Your task to perform on an android device: turn off wifi Image 0: 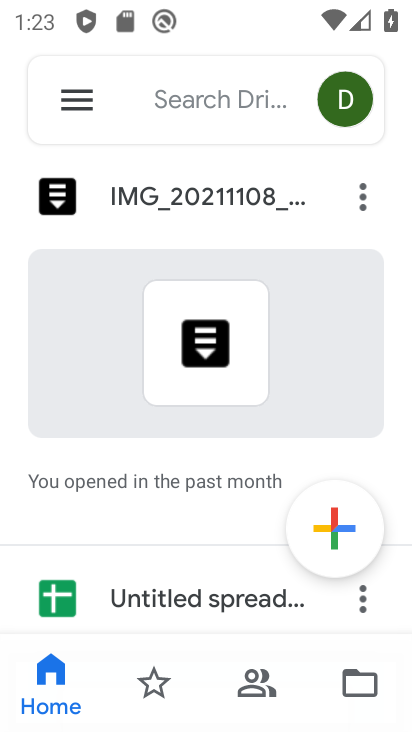
Step 0: press back button
Your task to perform on an android device: turn off wifi Image 1: 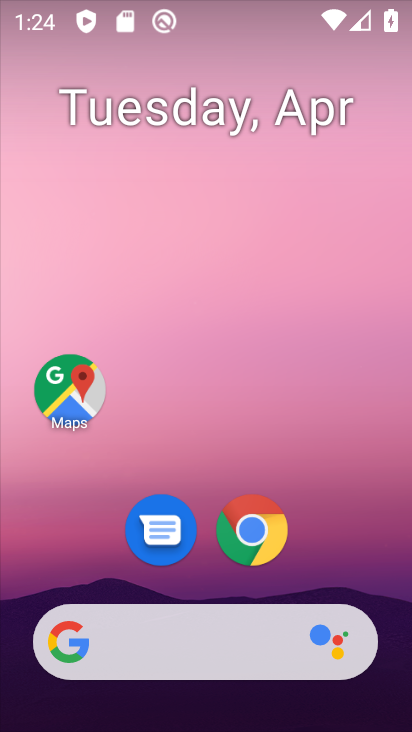
Step 1: drag from (207, 713) to (196, 56)
Your task to perform on an android device: turn off wifi Image 2: 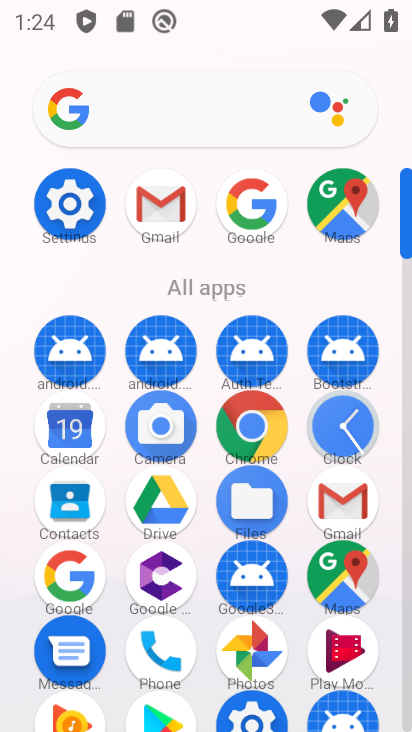
Step 2: click (71, 211)
Your task to perform on an android device: turn off wifi Image 3: 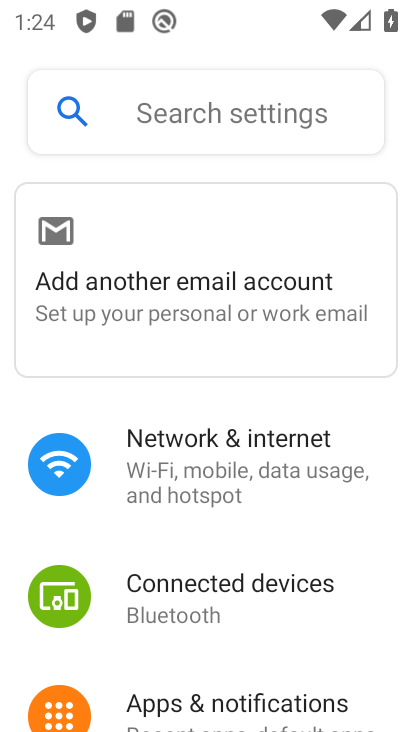
Step 3: click (219, 460)
Your task to perform on an android device: turn off wifi Image 4: 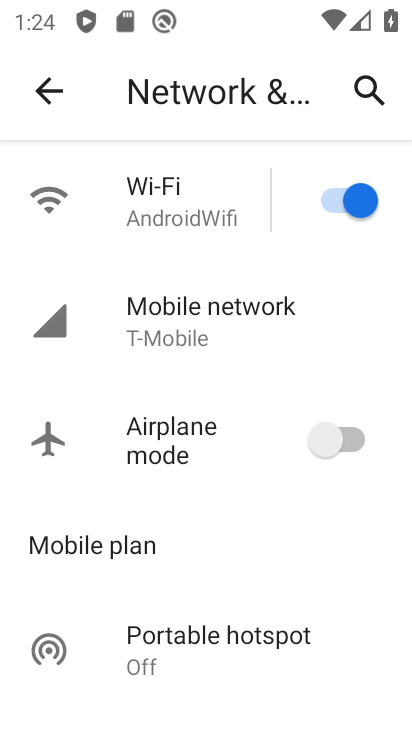
Step 4: click (332, 204)
Your task to perform on an android device: turn off wifi Image 5: 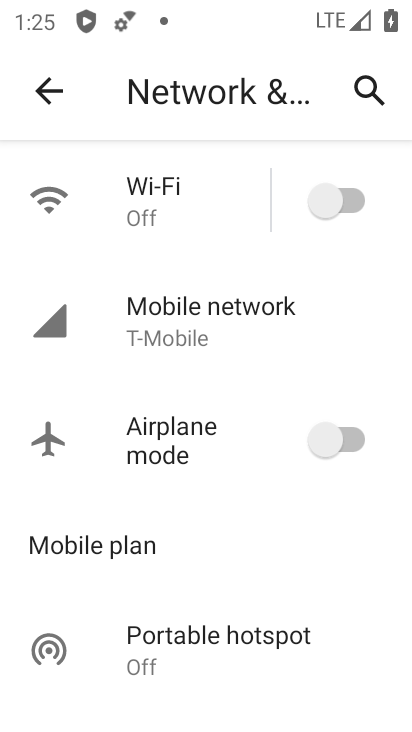
Step 5: task complete